Your task to perform on an android device: Open eBay Image 0: 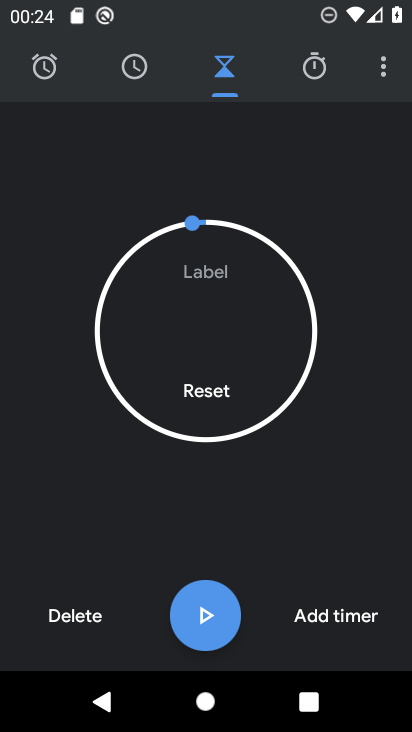
Step 0: press home button
Your task to perform on an android device: Open eBay Image 1: 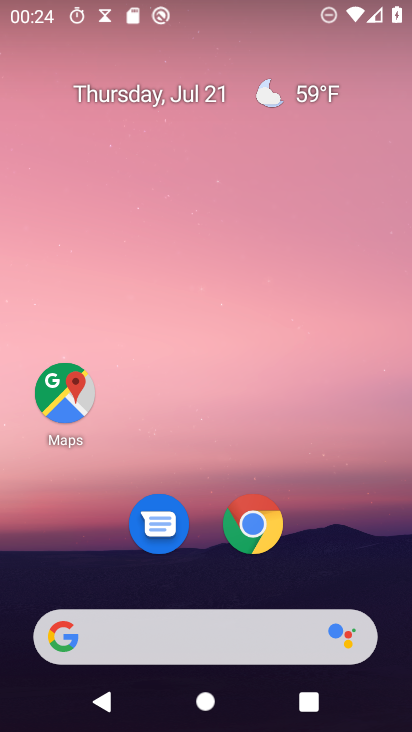
Step 1: click (248, 534)
Your task to perform on an android device: Open eBay Image 2: 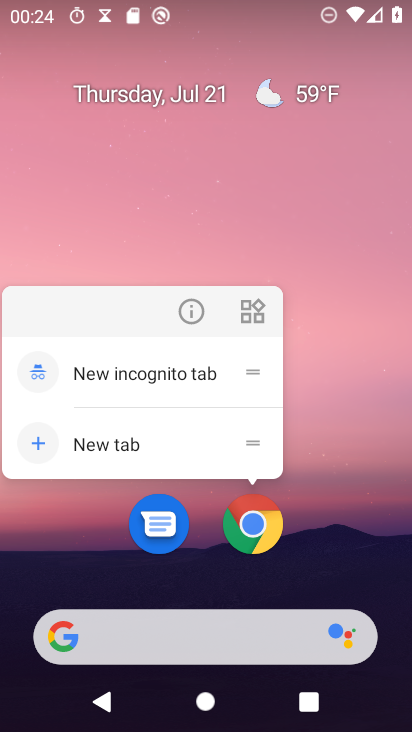
Step 2: click (261, 521)
Your task to perform on an android device: Open eBay Image 3: 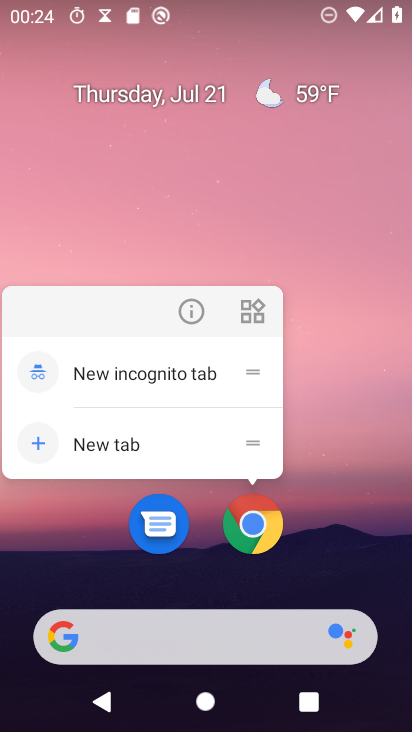
Step 3: click (247, 521)
Your task to perform on an android device: Open eBay Image 4: 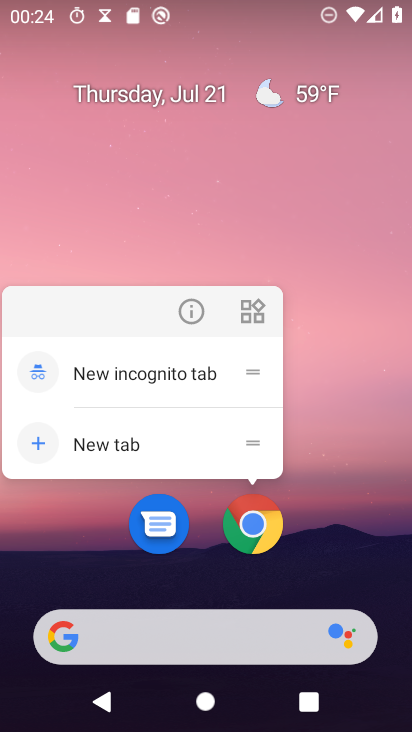
Step 4: click (255, 518)
Your task to perform on an android device: Open eBay Image 5: 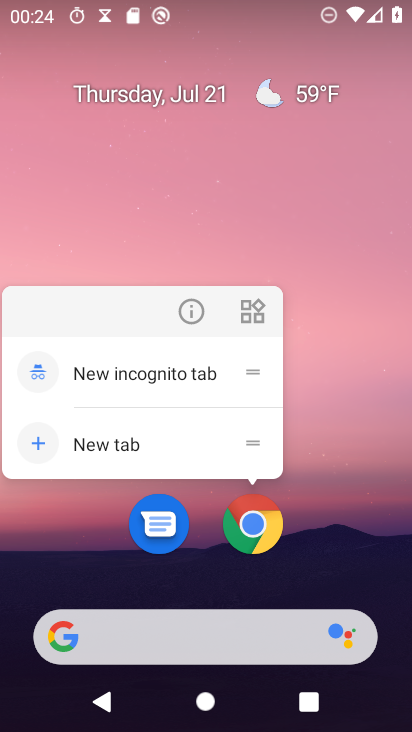
Step 5: click (255, 531)
Your task to perform on an android device: Open eBay Image 6: 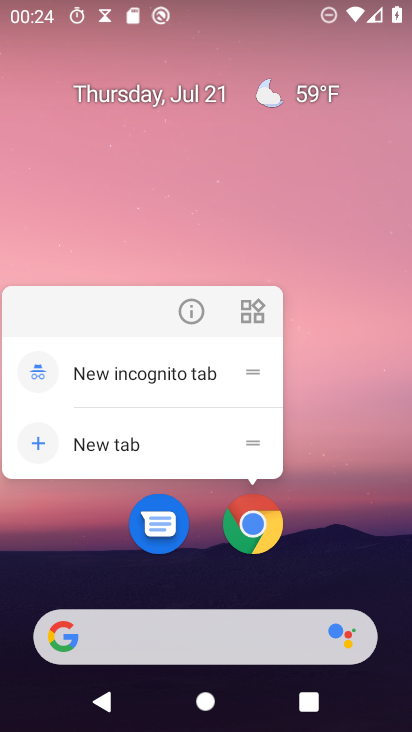
Step 6: click (257, 528)
Your task to perform on an android device: Open eBay Image 7: 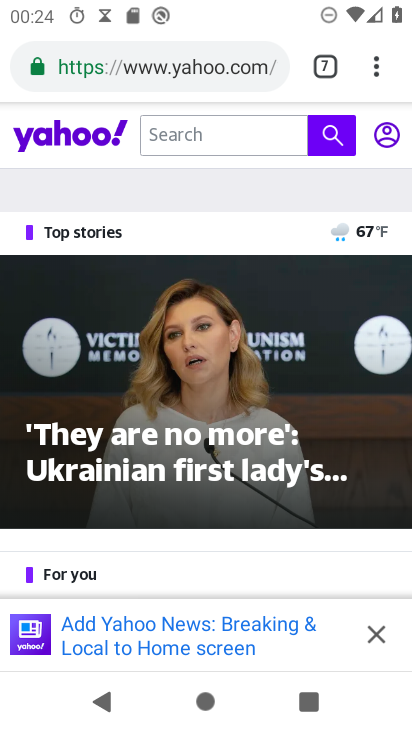
Step 7: drag from (377, 62) to (241, 138)
Your task to perform on an android device: Open eBay Image 8: 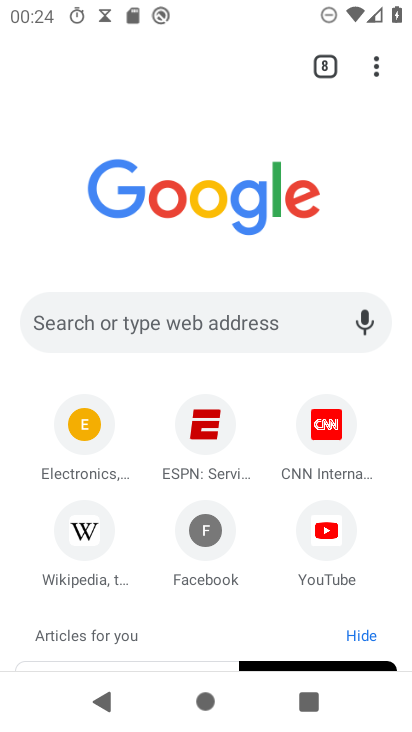
Step 8: click (148, 329)
Your task to perform on an android device: Open eBay Image 9: 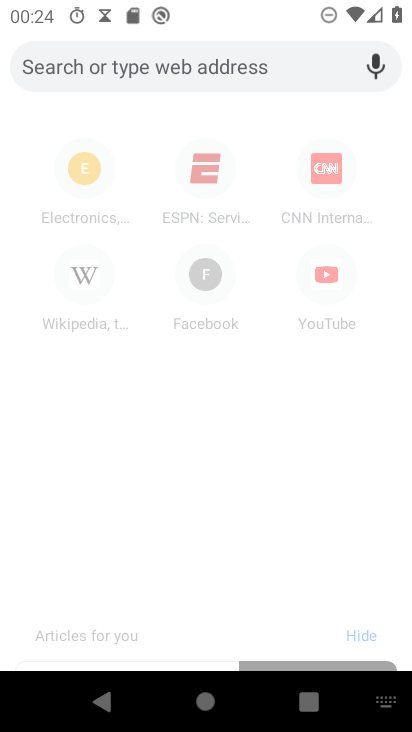
Step 9: type "ebay"
Your task to perform on an android device: Open eBay Image 10: 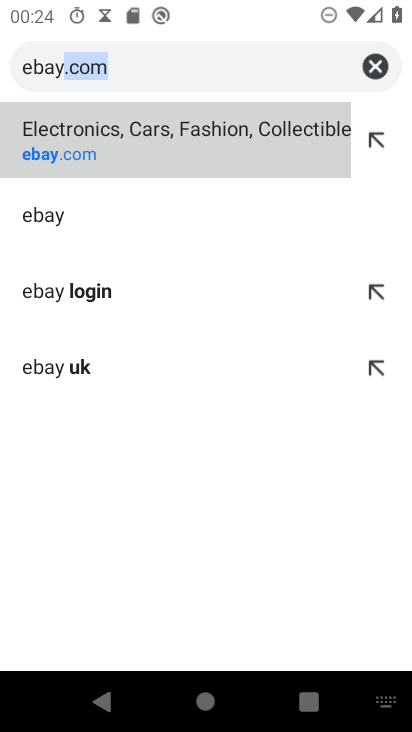
Step 10: click (65, 157)
Your task to perform on an android device: Open eBay Image 11: 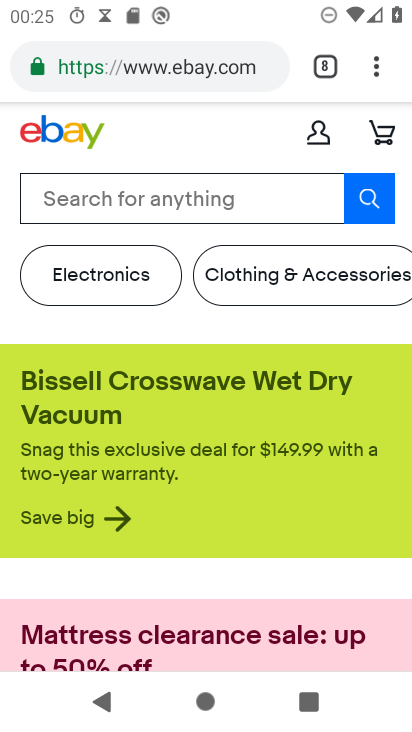
Step 11: task complete